Your task to perform on an android device: Go to Wikipedia Image 0: 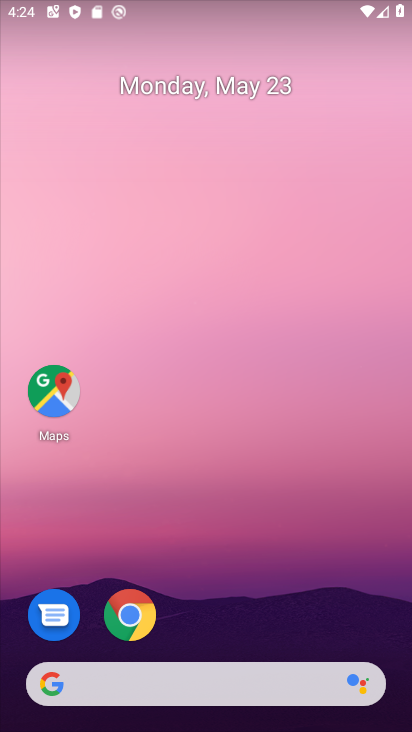
Step 0: drag from (275, 562) to (264, 47)
Your task to perform on an android device: Go to Wikipedia Image 1: 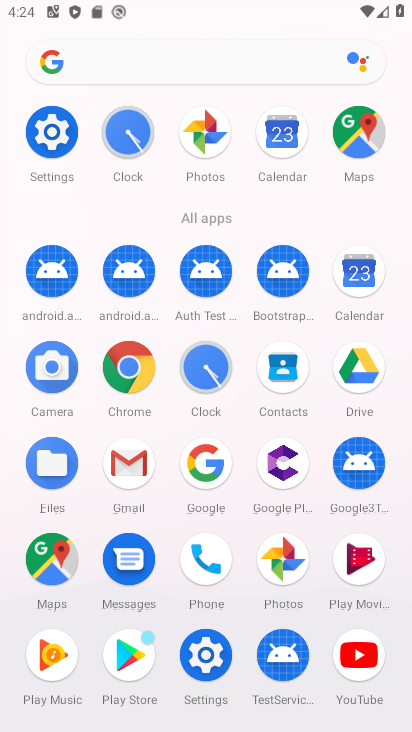
Step 1: click (148, 366)
Your task to perform on an android device: Go to Wikipedia Image 2: 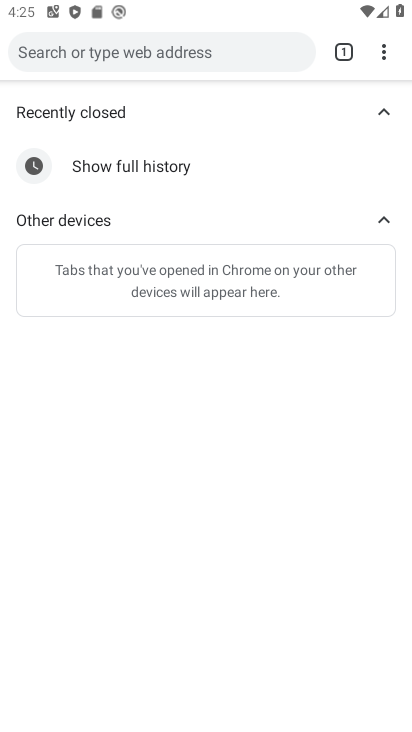
Step 2: click (383, 49)
Your task to perform on an android device: Go to Wikipedia Image 3: 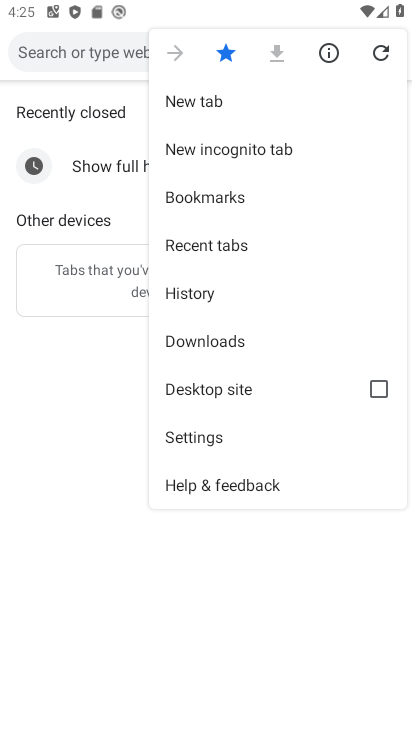
Step 3: click (300, 95)
Your task to perform on an android device: Go to Wikipedia Image 4: 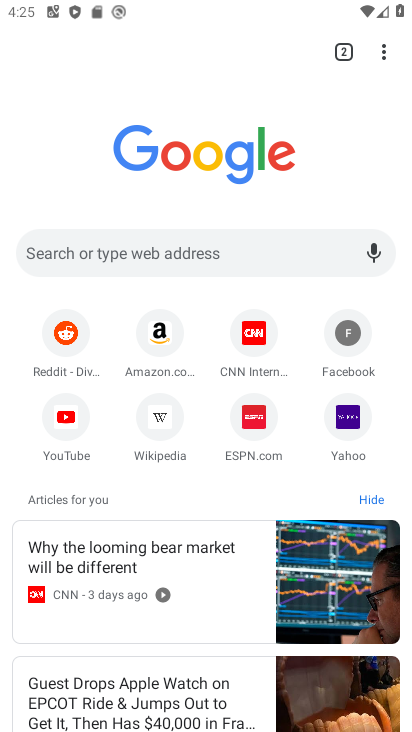
Step 4: click (155, 411)
Your task to perform on an android device: Go to Wikipedia Image 5: 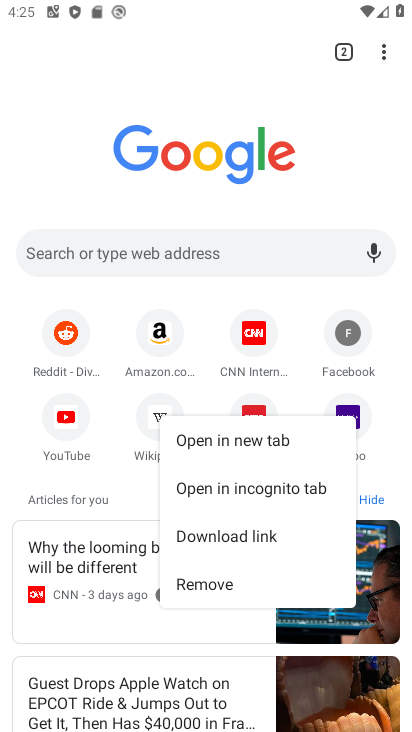
Step 5: click (152, 415)
Your task to perform on an android device: Go to Wikipedia Image 6: 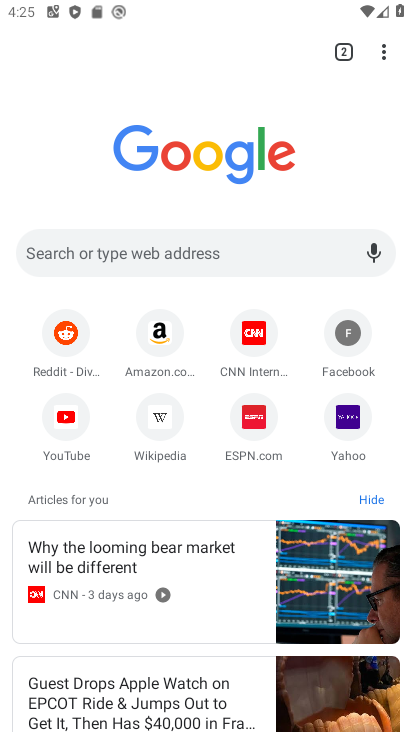
Step 6: click (152, 415)
Your task to perform on an android device: Go to Wikipedia Image 7: 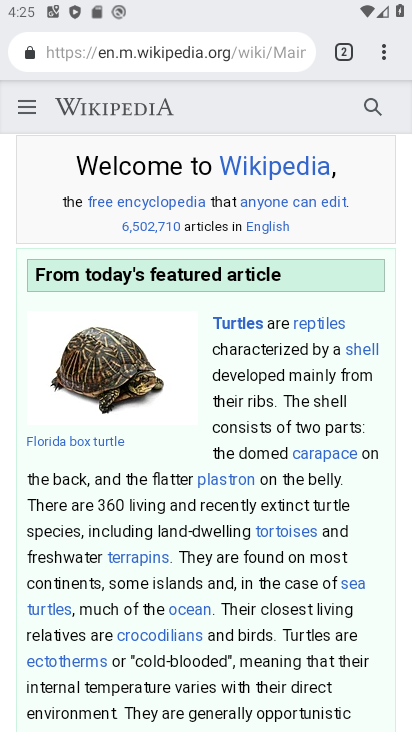
Step 7: task complete